Your task to perform on an android device: turn on the 24-hour format for clock Image 0: 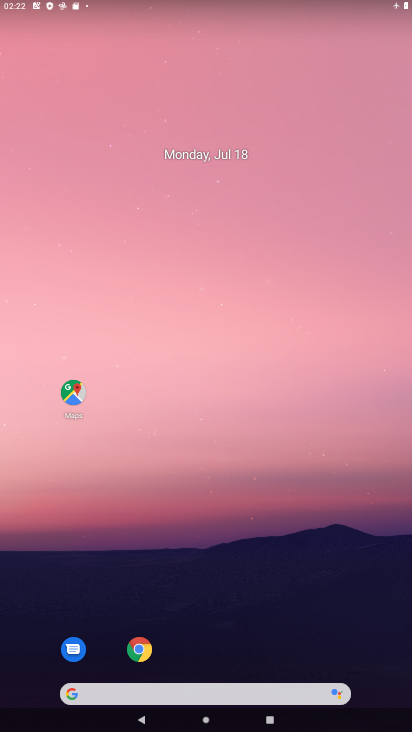
Step 0: drag from (234, 717) to (225, 65)
Your task to perform on an android device: turn on the 24-hour format for clock Image 1: 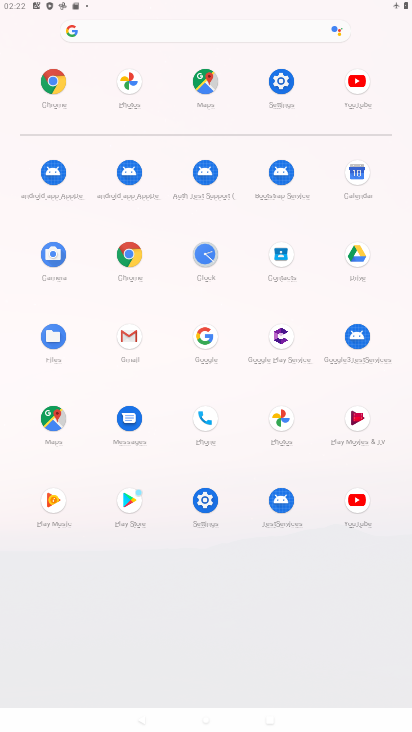
Step 1: click (212, 259)
Your task to perform on an android device: turn on the 24-hour format for clock Image 2: 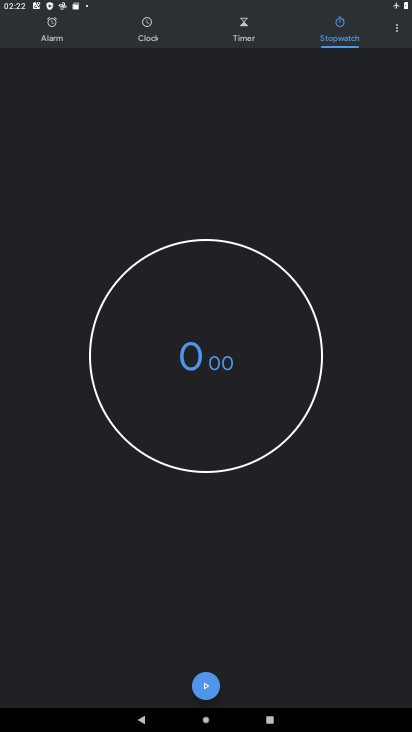
Step 2: click (400, 23)
Your task to perform on an android device: turn on the 24-hour format for clock Image 3: 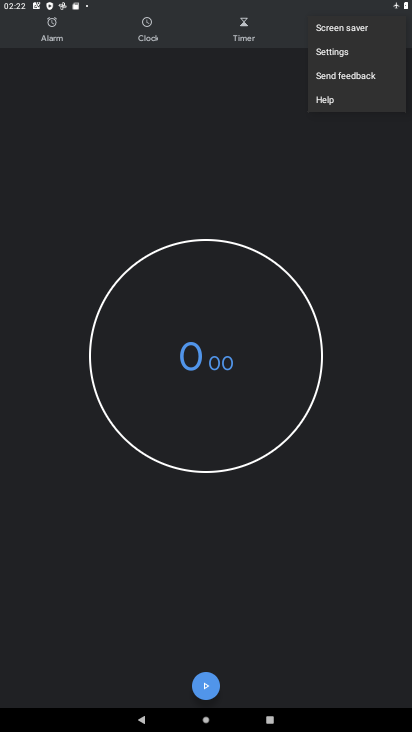
Step 3: click (350, 54)
Your task to perform on an android device: turn on the 24-hour format for clock Image 4: 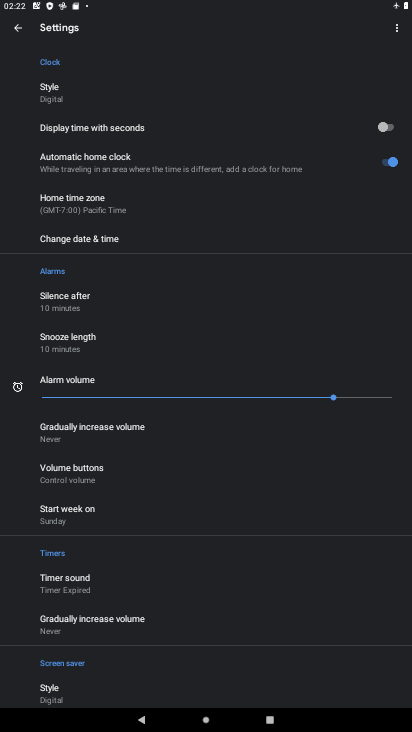
Step 4: click (131, 240)
Your task to perform on an android device: turn on the 24-hour format for clock Image 5: 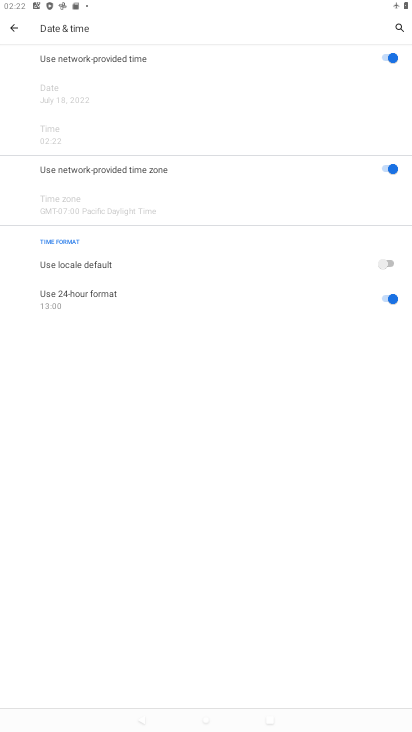
Step 5: task complete